Your task to perform on an android device: change the clock display to digital Image 0: 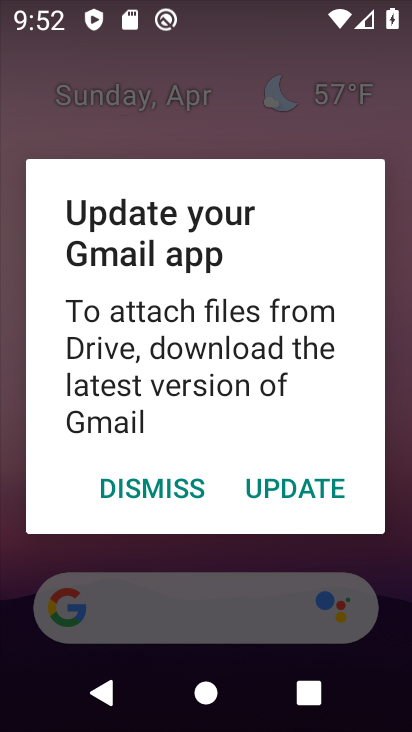
Step 0: press home button
Your task to perform on an android device: change the clock display to digital Image 1: 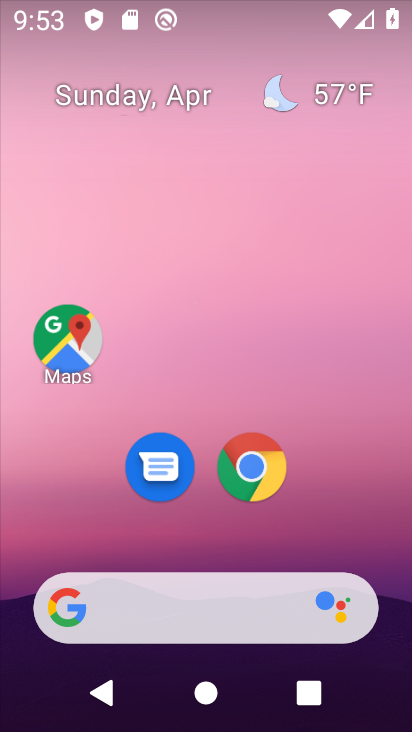
Step 1: drag from (348, 479) to (268, 56)
Your task to perform on an android device: change the clock display to digital Image 2: 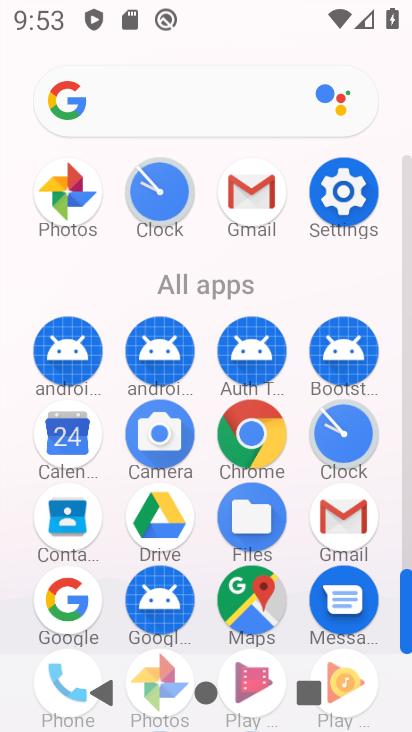
Step 2: click (343, 448)
Your task to perform on an android device: change the clock display to digital Image 3: 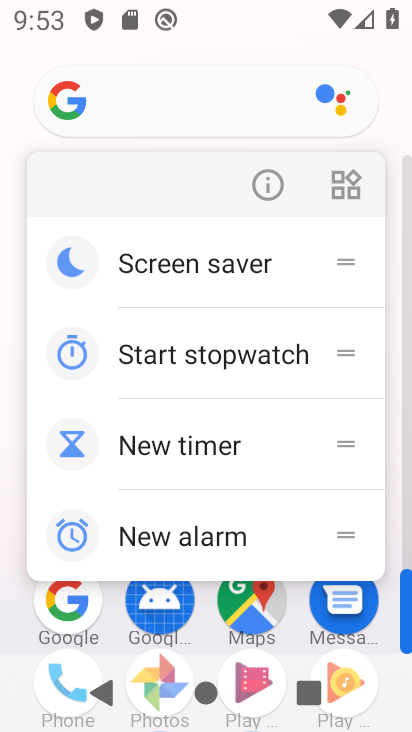
Step 3: click (313, 644)
Your task to perform on an android device: change the clock display to digital Image 4: 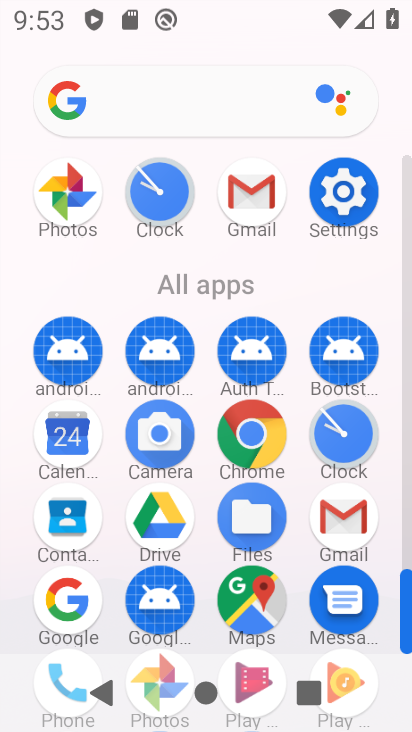
Step 4: click (355, 454)
Your task to perform on an android device: change the clock display to digital Image 5: 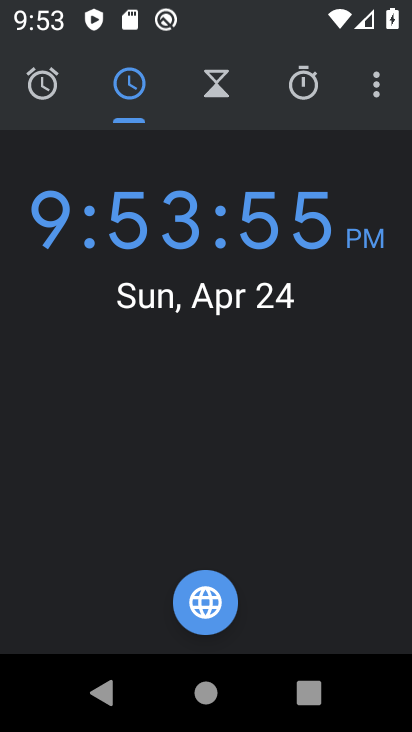
Step 5: click (369, 83)
Your task to perform on an android device: change the clock display to digital Image 6: 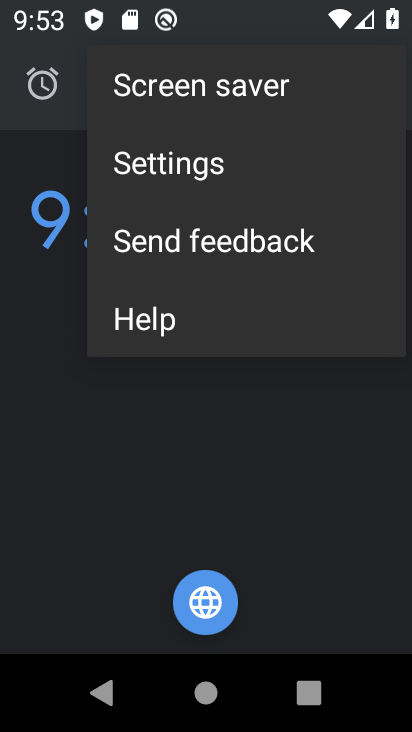
Step 6: click (200, 180)
Your task to perform on an android device: change the clock display to digital Image 7: 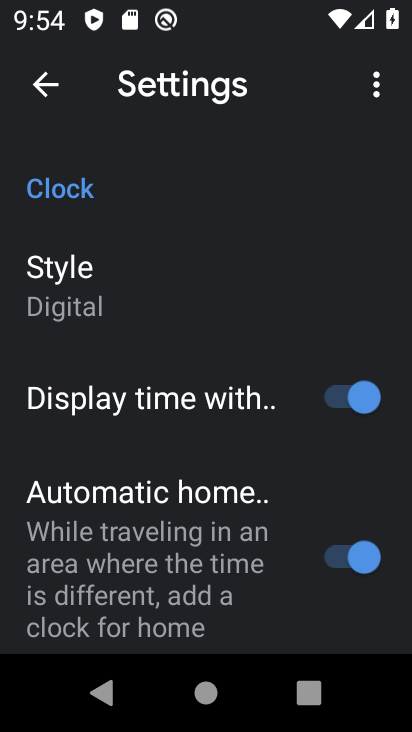
Step 7: task complete